Your task to perform on an android device: install app "Booking.com: Hotels and more" Image 0: 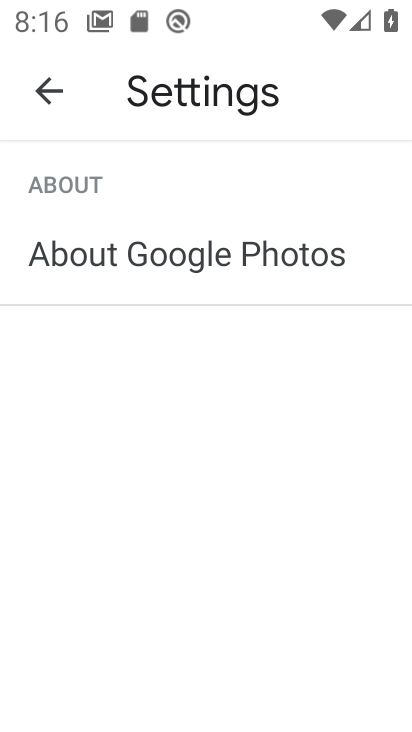
Step 0: press home button
Your task to perform on an android device: install app "Booking.com: Hotels and more" Image 1: 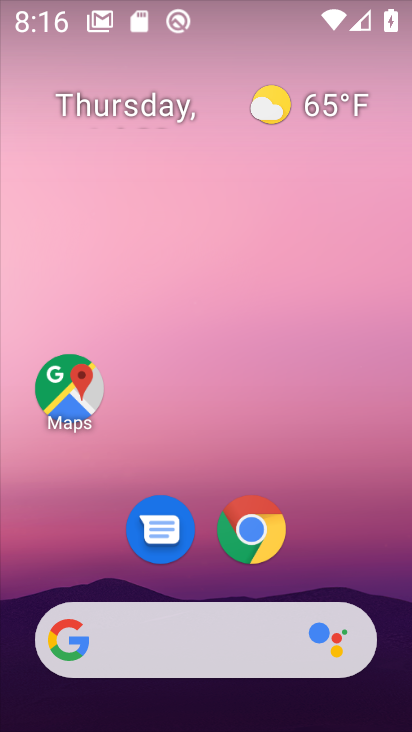
Step 1: drag from (244, 713) to (246, 81)
Your task to perform on an android device: install app "Booking.com: Hotels and more" Image 2: 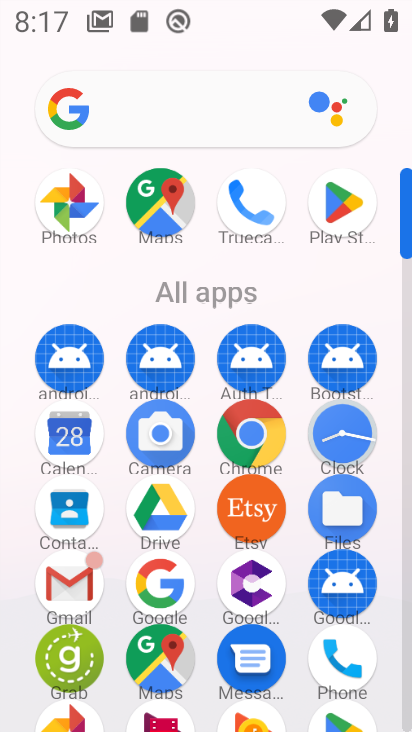
Step 2: click (328, 716)
Your task to perform on an android device: install app "Booking.com: Hotels and more" Image 3: 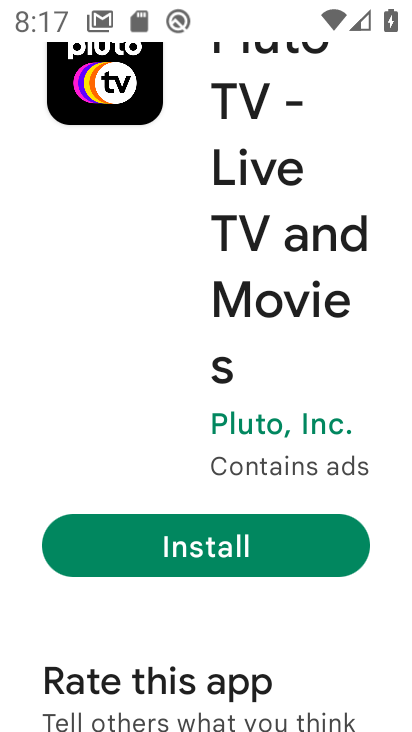
Step 3: drag from (360, 98) to (349, 405)
Your task to perform on an android device: install app "Booking.com: Hotels and more" Image 4: 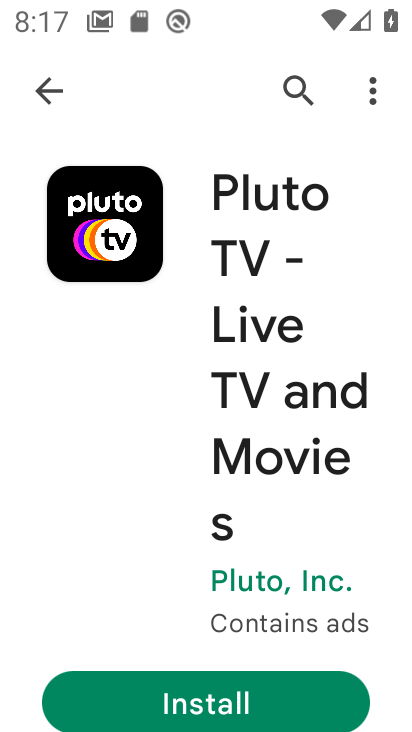
Step 4: click (294, 85)
Your task to perform on an android device: install app "Booking.com: Hotels and more" Image 5: 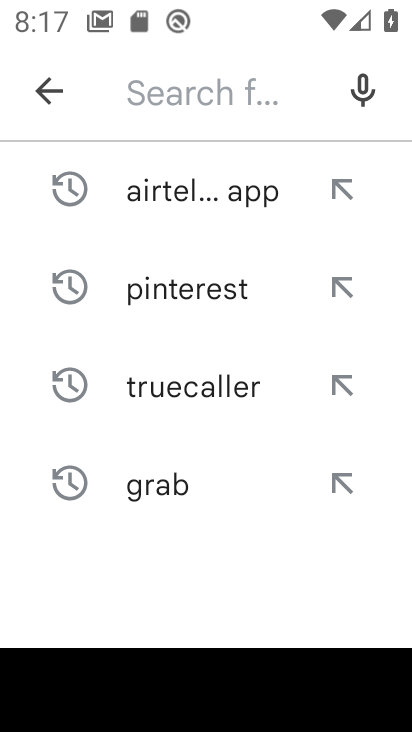
Step 5: type "Booking.com: Hotels and more"
Your task to perform on an android device: install app "Booking.com: Hotels and more" Image 6: 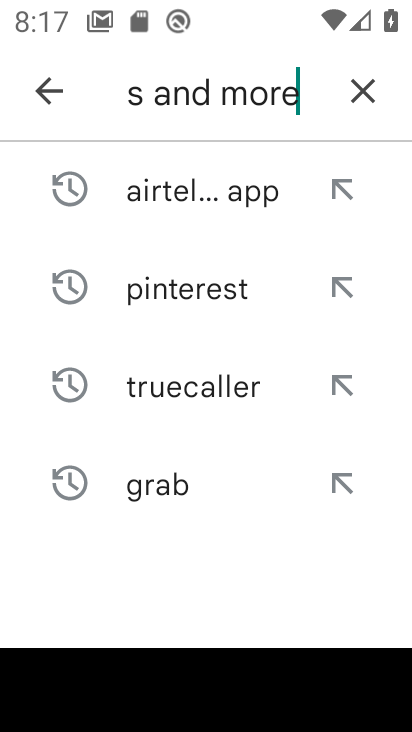
Step 6: type ""
Your task to perform on an android device: install app "Booking.com: Hotels and more" Image 7: 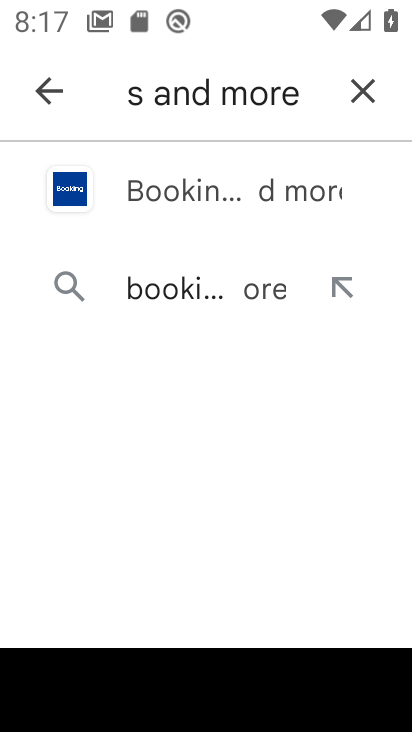
Step 7: click (286, 192)
Your task to perform on an android device: install app "Booking.com: Hotels and more" Image 8: 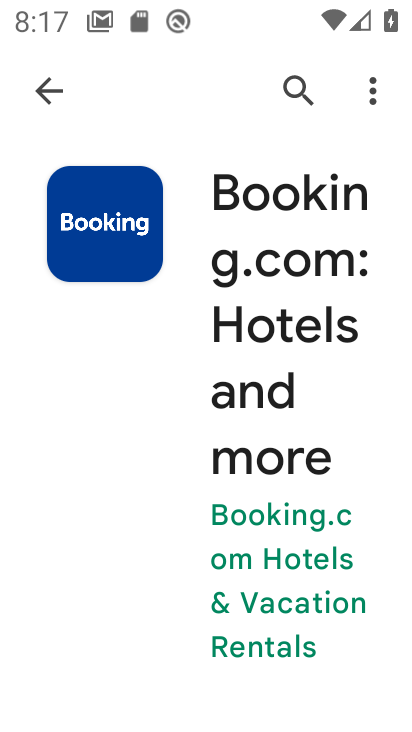
Step 8: drag from (109, 577) to (112, 219)
Your task to perform on an android device: install app "Booking.com: Hotels and more" Image 9: 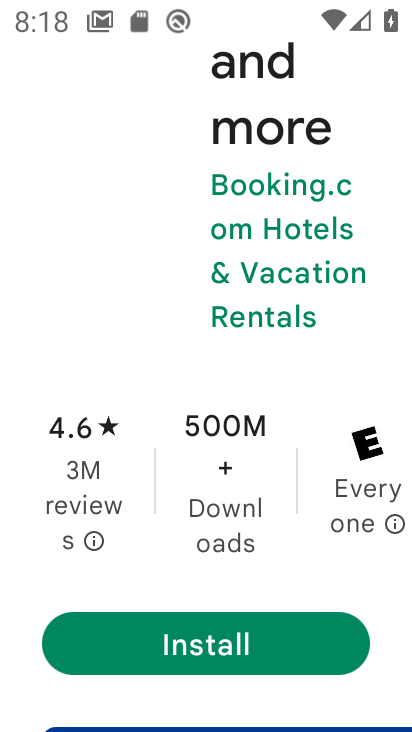
Step 9: click (224, 662)
Your task to perform on an android device: install app "Booking.com: Hotels and more" Image 10: 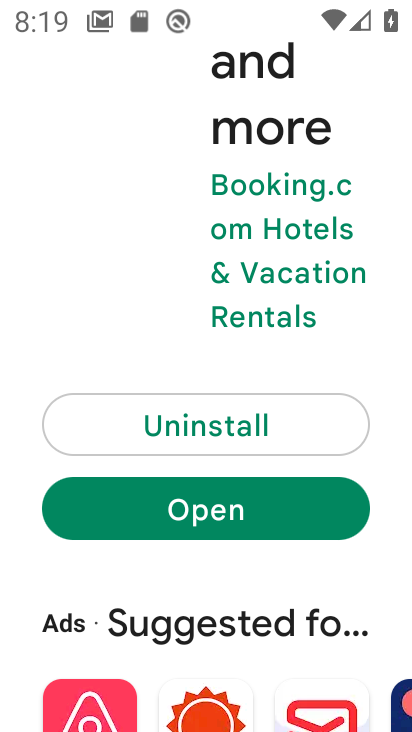
Step 10: task complete